Your task to perform on an android device: turn off improve location accuracy Image 0: 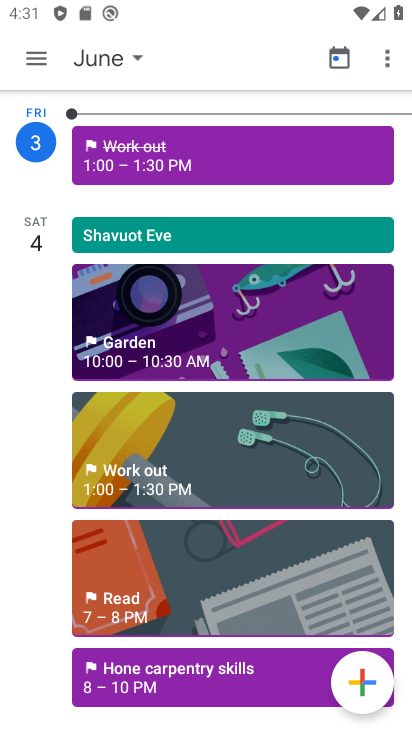
Step 0: press home button
Your task to perform on an android device: turn off improve location accuracy Image 1: 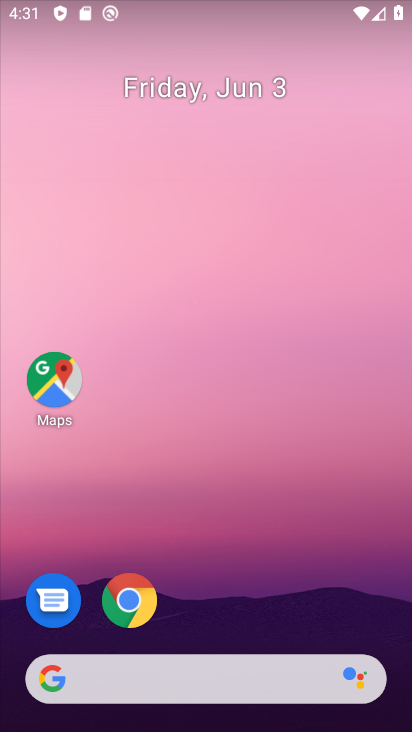
Step 1: drag from (258, 604) to (398, 5)
Your task to perform on an android device: turn off improve location accuracy Image 2: 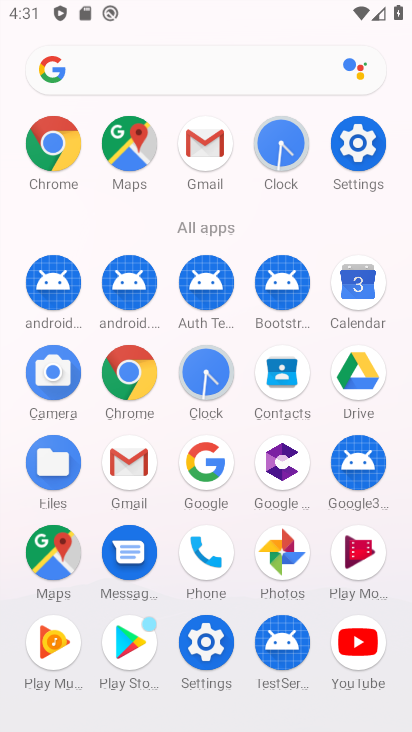
Step 2: click (218, 649)
Your task to perform on an android device: turn off improve location accuracy Image 3: 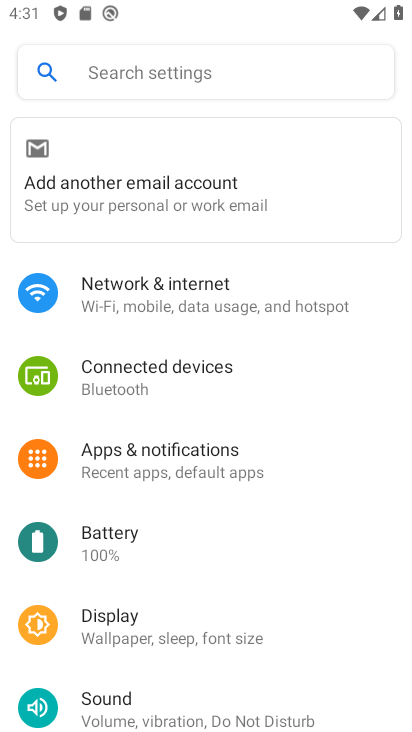
Step 3: drag from (212, 585) to (293, 163)
Your task to perform on an android device: turn off improve location accuracy Image 4: 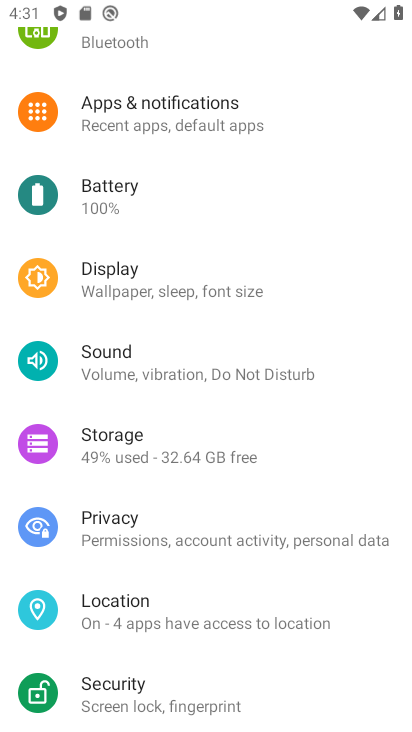
Step 4: click (184, 612)
Your task to perform on an android device: turn off improve location accuracy Image 5: 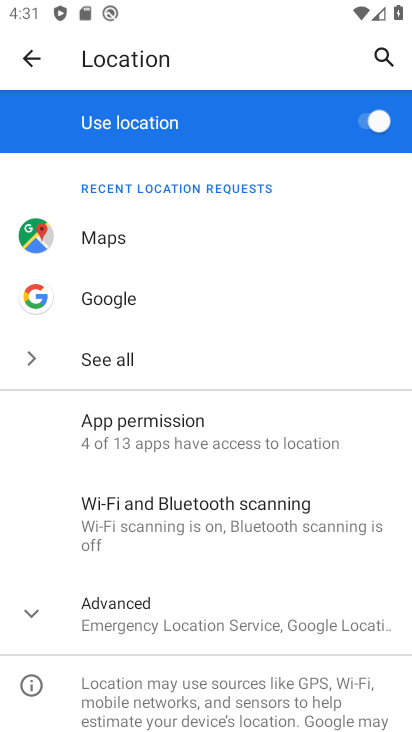
Step 5: drag from (283, 602) to (294, 418)
Your task to perform on an android device: turn off improve location accuracy Image 6: 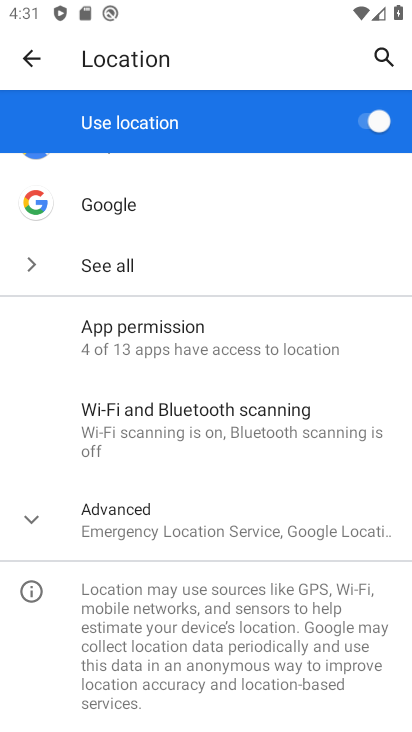
Step 6: click (185, 530)
Your task to perform on an android device: turn off improve location accuracy Image 7: 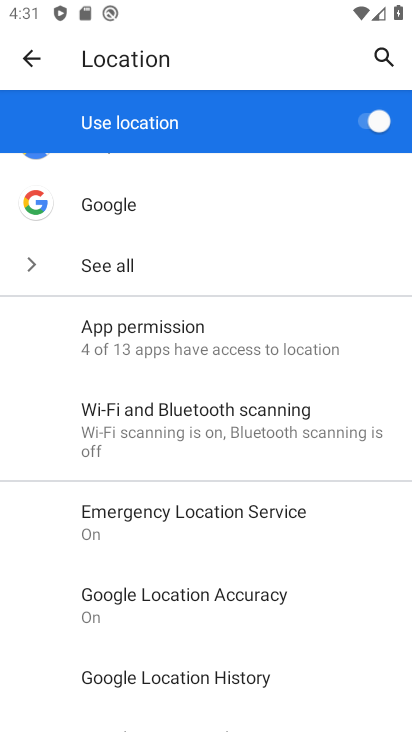
Step 7: click (235, 608)
Your task to perform on an android device: turn off improve location accuracy Image 8: 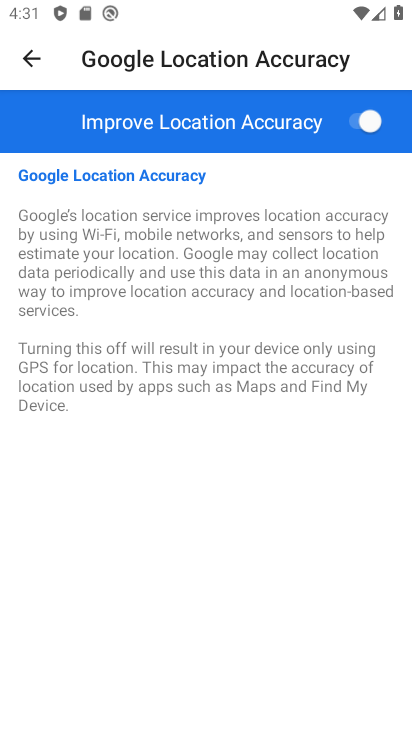
Step 8: click (336, 116)
Your task to perform on an android device: turn off improve location accuracy Image 9: 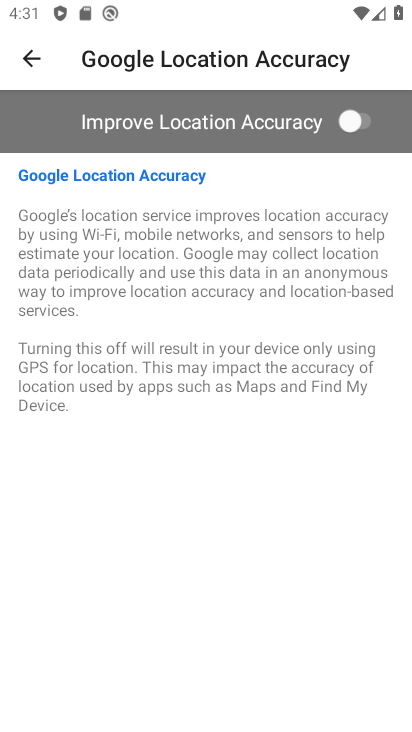
Step 9: task complete